Your task to perform on an android device: turn off translation in the chrome app Image 0: 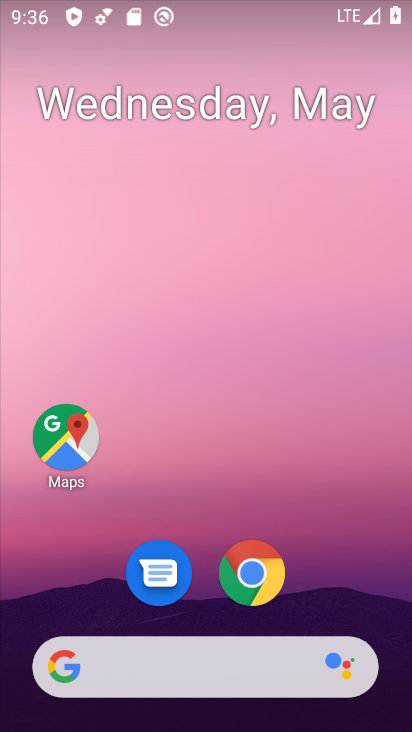
Step 0: click (279, 570)
Your task to perform on an android device: turn off translation in the chrome app Image 1: 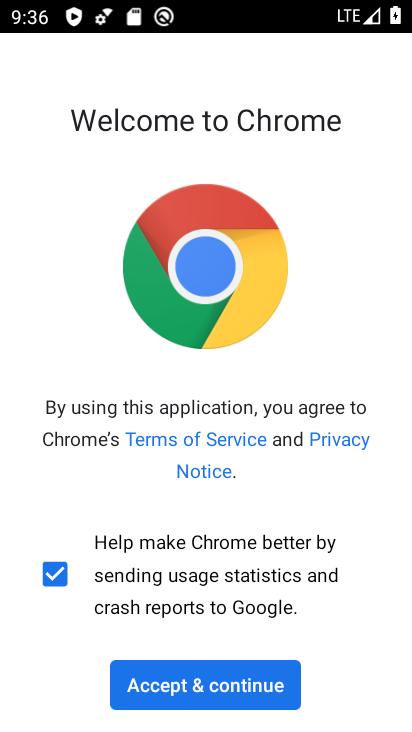
Step 1: click (187, 698)
Your task to perform on an android device: turn off translation in the chrome app Image 2: 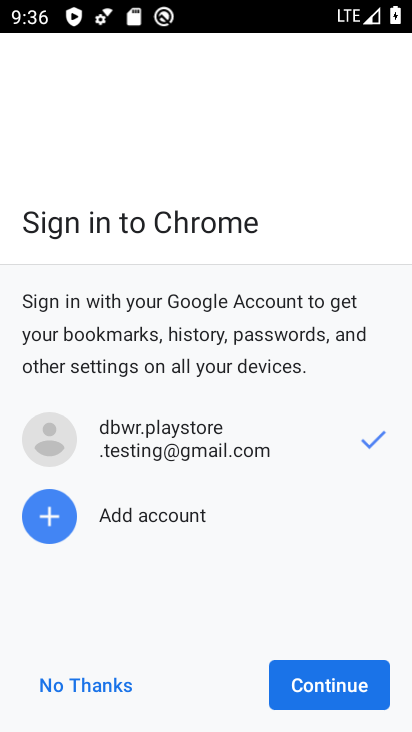
Step 2: click (301, 685)
Your task to perform on an android device: turn off translation in the chrome app Image 3: 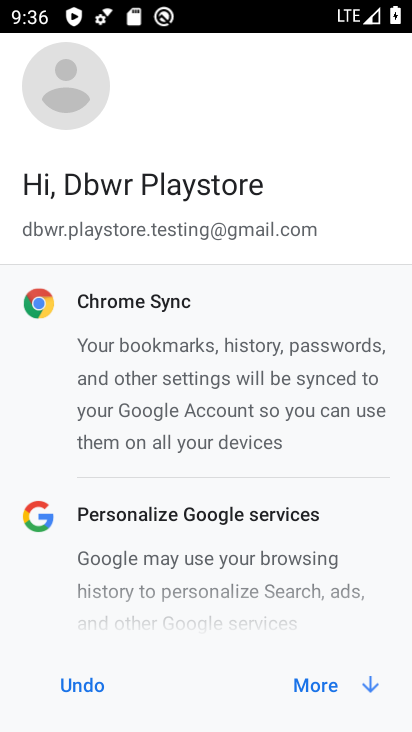
Step 3: click (382, 682)
Your task to perform on an android device: turn off translation in the chrome app Image 4: 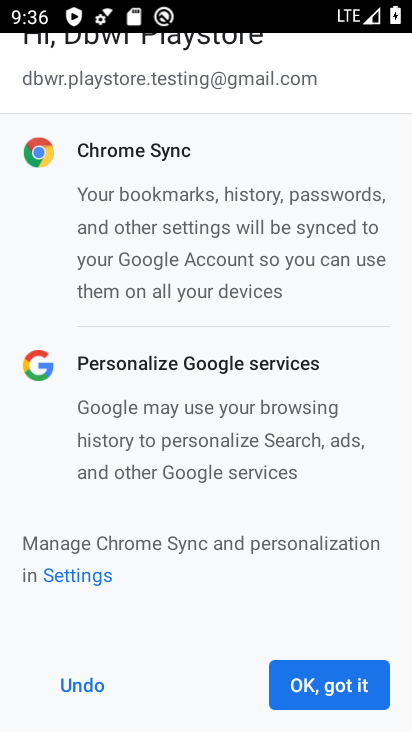
Step 4: click (375, 681)
Your task to perform on an android device: turn off translation in the chrome app Image 5: 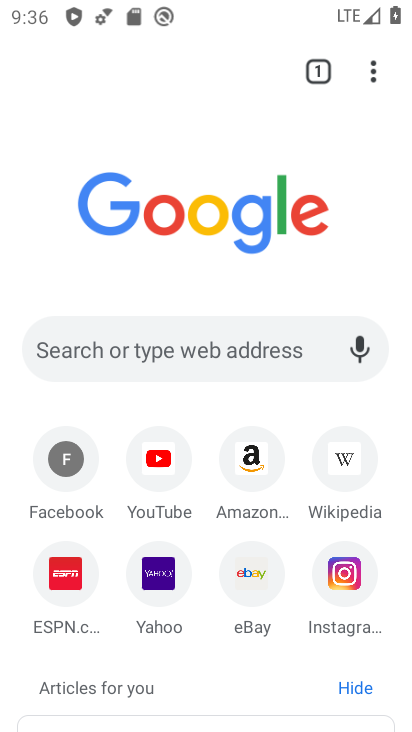
Step 5: click (372, 70)
Your task to perform on an android device: turn off translation in the chrome app Image 6: 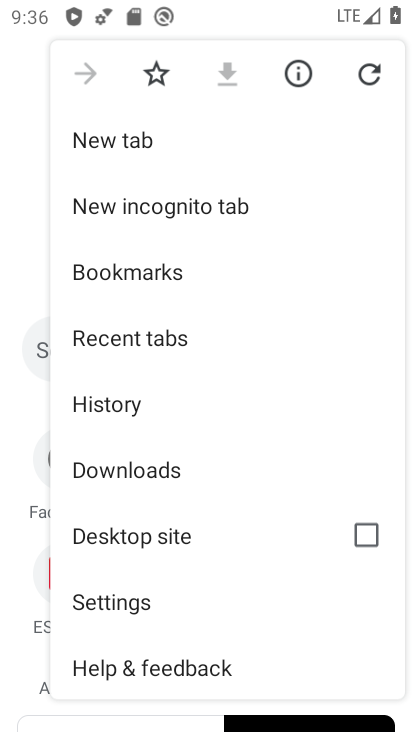
Step 6: click (137, 599)
Your task to perform on an android device: turn off translation in the chrome app Image 7: 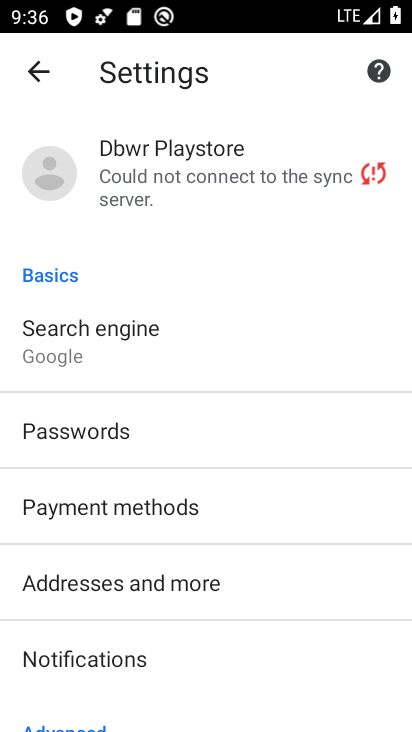
Step 7: drag from (293, 662) to (278, 222)
Your task to perform on an android device: turn off translation in the chrome app Image 8: 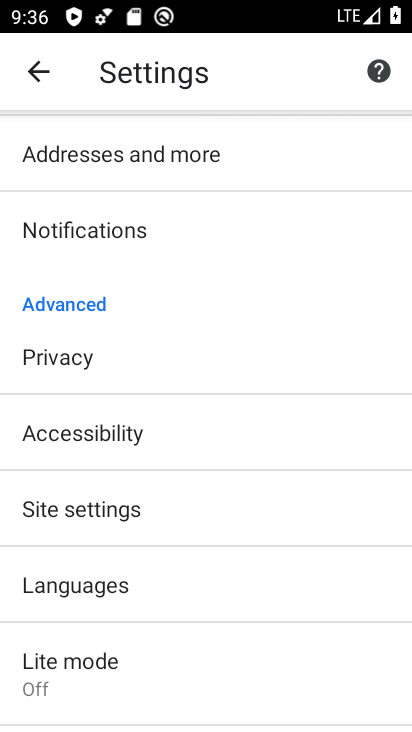
Step 8: click (113, 585)
Your task to perform on an android device: turn off translation in the chrome app Image 9: 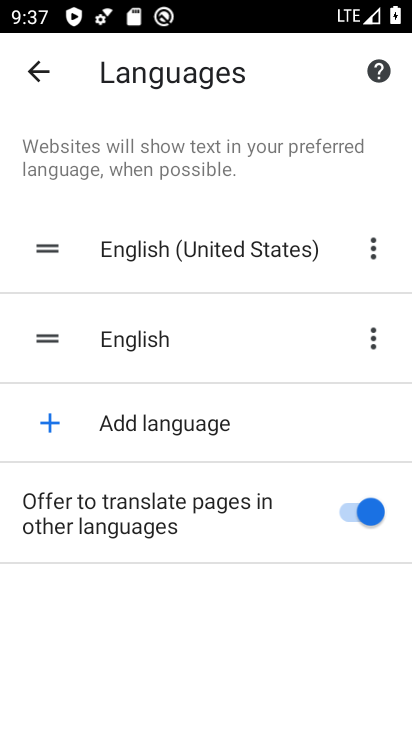
Step 9: task complete